Your task to perform on an android device: empty trash in the gmail app Image 0: 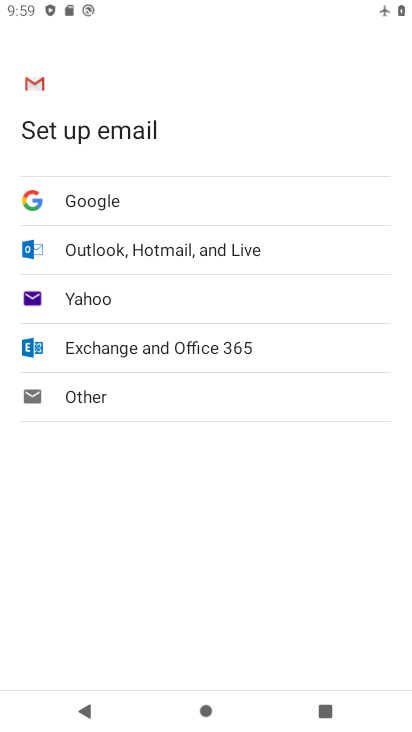
Step 0: press home button
Your task to perform on an android device: empty trash in the gmail app Image 1: 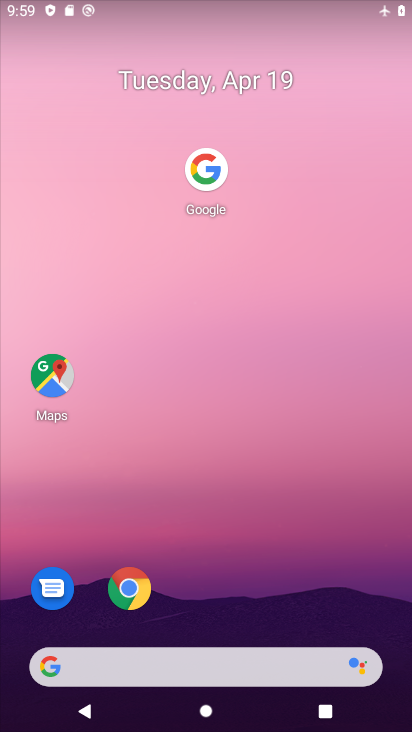
Step 1: drag from (263, 571) to (406, 275)
Your task to perform on an android device: empty trash in the gmail app Image 2: 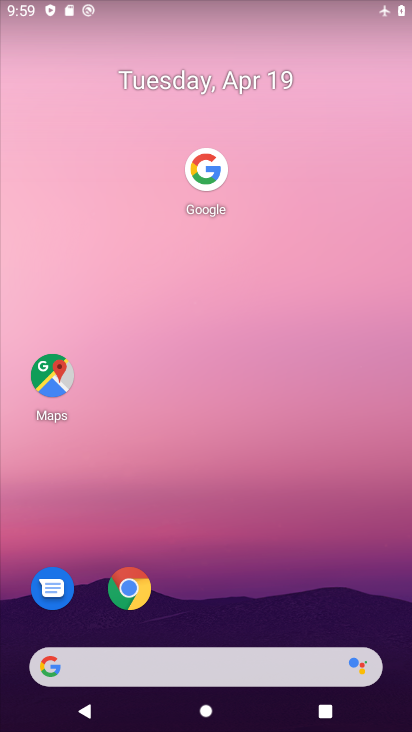
Step 2: drag from (234, 586) to (280, 12)
Your task to perform on an android device: empty trash in the gmail app Image 3: 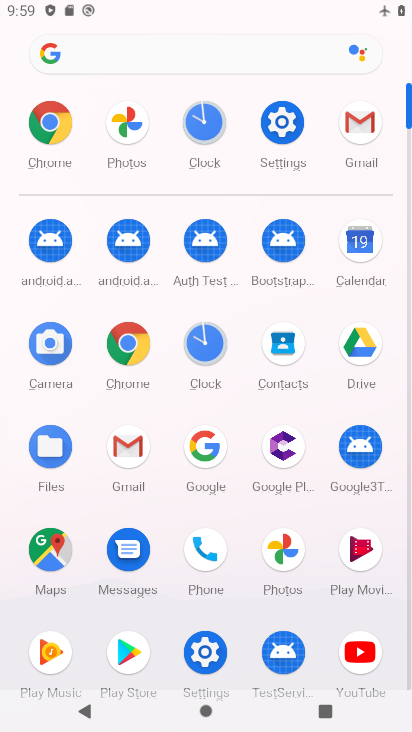
Step 3: click (357, 123)
Your task to perform on an android device: empty trash in the gmail app Image 4: 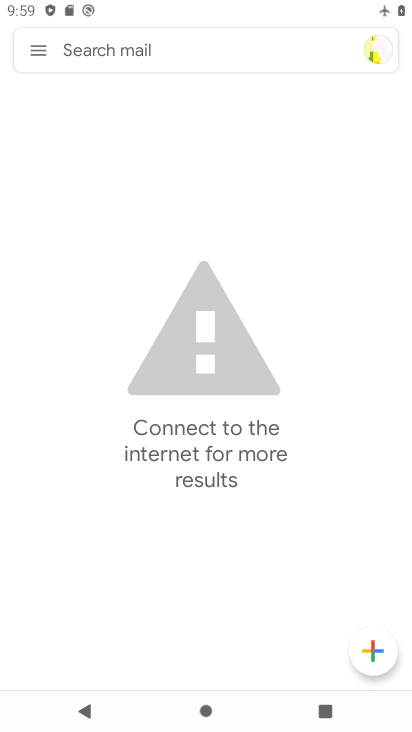
Step 4: click (33, 52)
Your task to perform on an android device: empty trash in the gmail app Image 5: 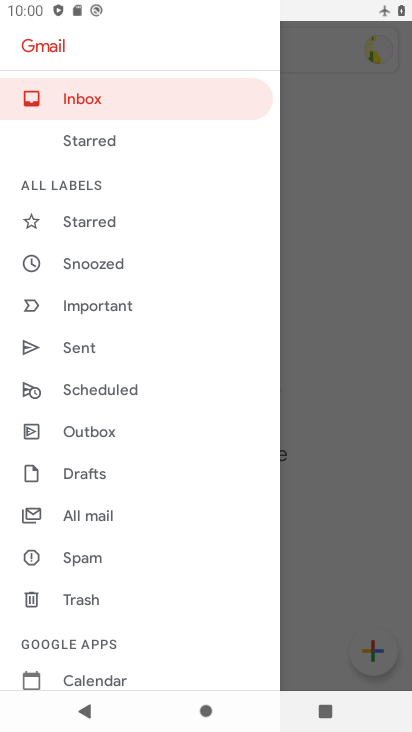
Step 5: click (87, 603)
Your task to perform on an android device: empty trash in the gmail app Image 6: 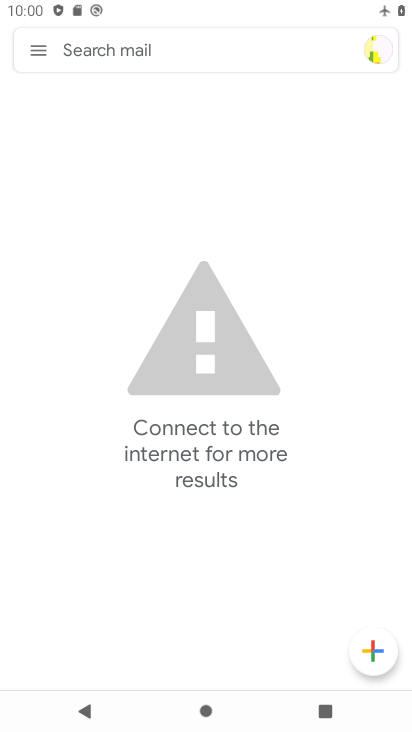
Step 6: task complete